Your task to perform on an android device: turn off translation in the chrome app Image 0: 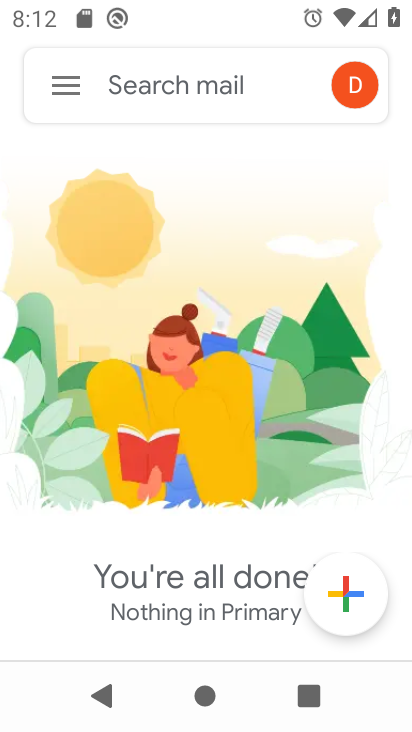
Step 0: press home button
Your task to perform on an android device: turn off translation in the chrome app Image 1: 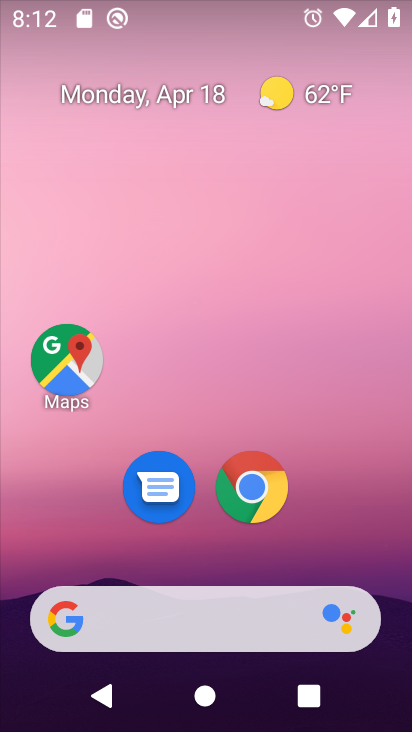
Step 1: drag from (205, 539) to (234, 27)
Your task to perform on an android device: turn off translation in the chrome app Image 2: 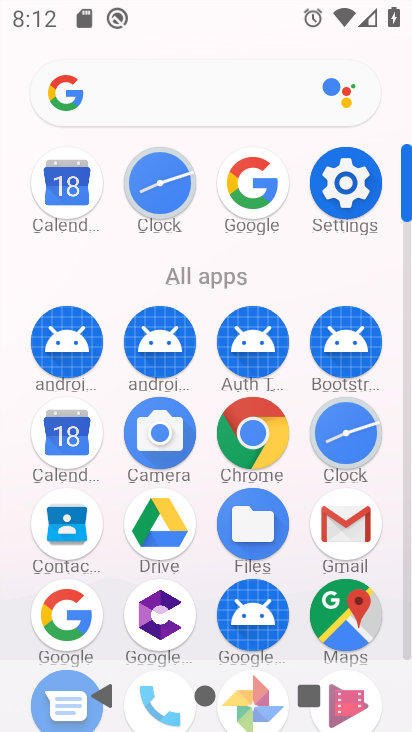
Step 2: click (248, 422)
Your task to perform on an android device: turn off translation in the chrome app Image 3: 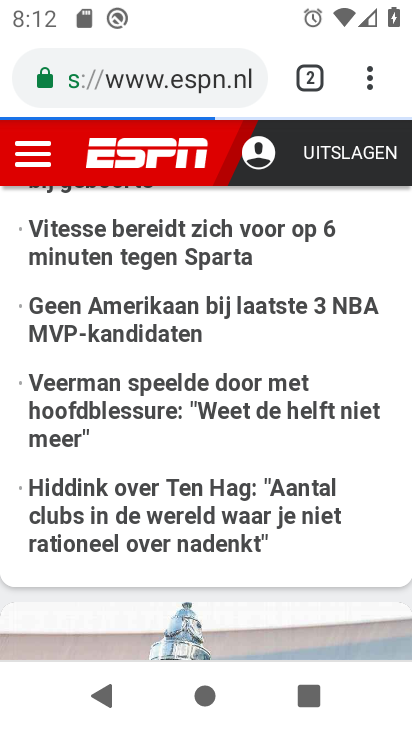
Step 3: click (310, 69)
Your task to perform on an android device: turn off translation in the chrome app Image 4: 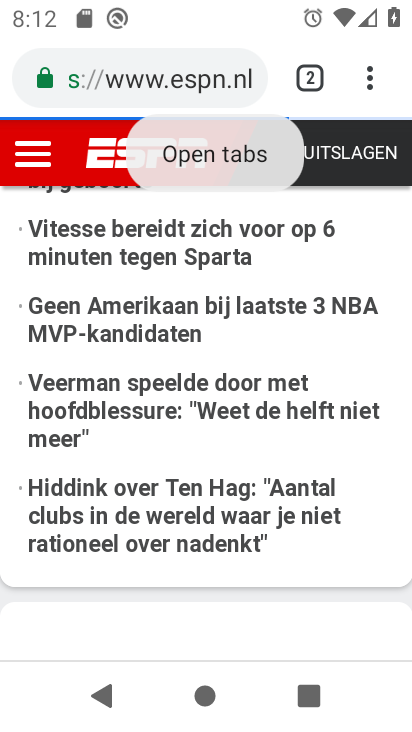
Step 4: click (307, 74)
Your task to perform on an android device: turn off translation in the chrome app Image 5: 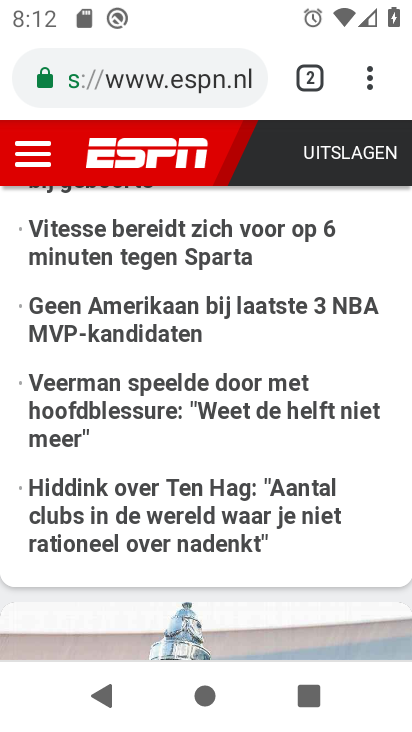
Step 5: click (307, 76)
Your task to perform on an android device: turn off translation in the chrome app Image 6: 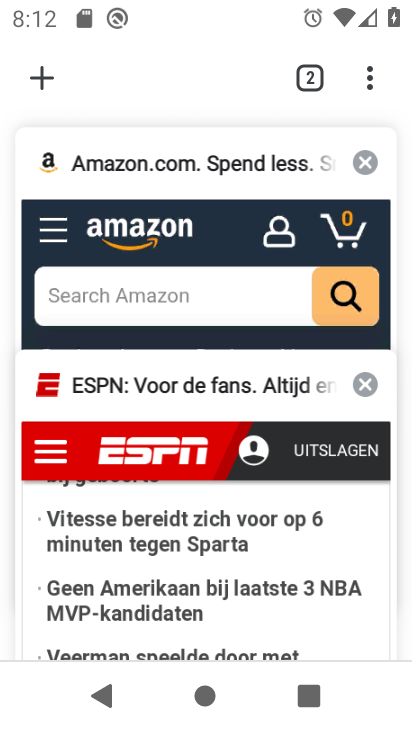
Step 6: click (366, 156)
Your task to perform on an android device: turn off translation in the chrome app Image 7: 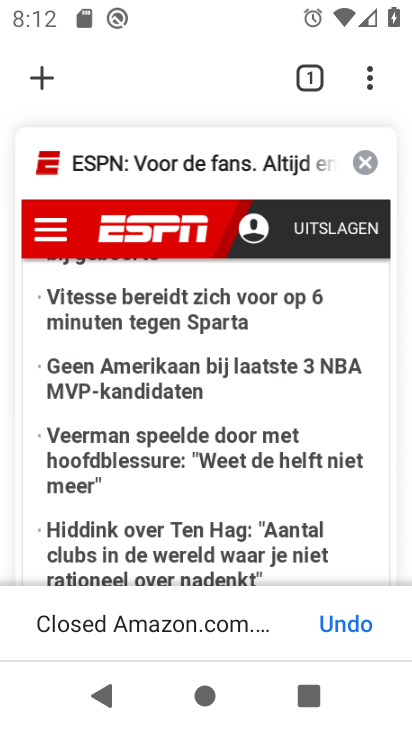
Step 7: click (366, 156)
Your task to perform on an android device: turn off translation in the chrome app Image 8: 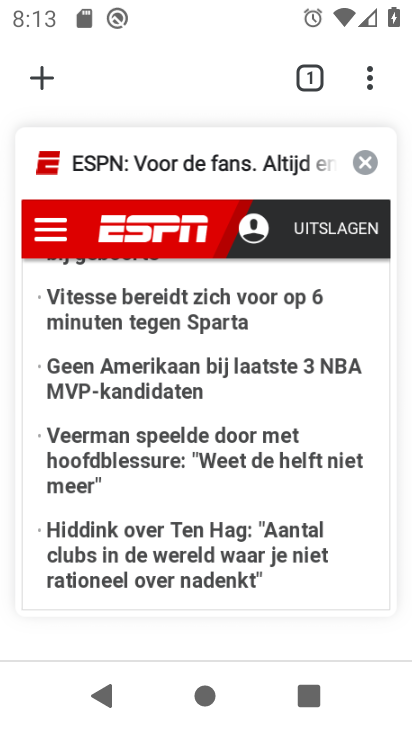
Step 8: click (363, 159)
Your task to perform on an android device: turn off translation in the chrome app Image 9: 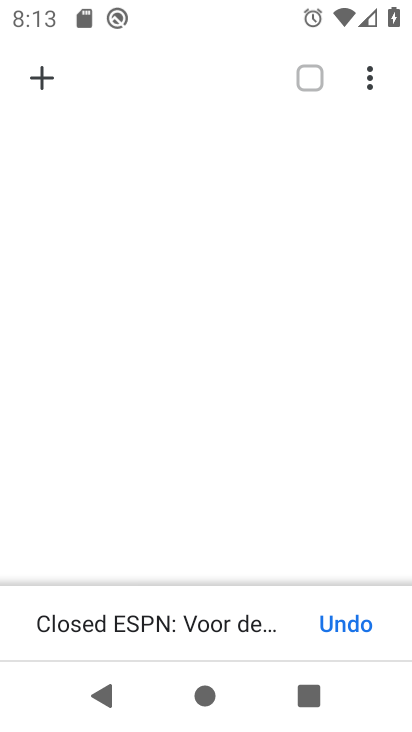
Step 9: click (47, 82)
Your task to perform on an android device: turn off translation in the chrome app Image 10: 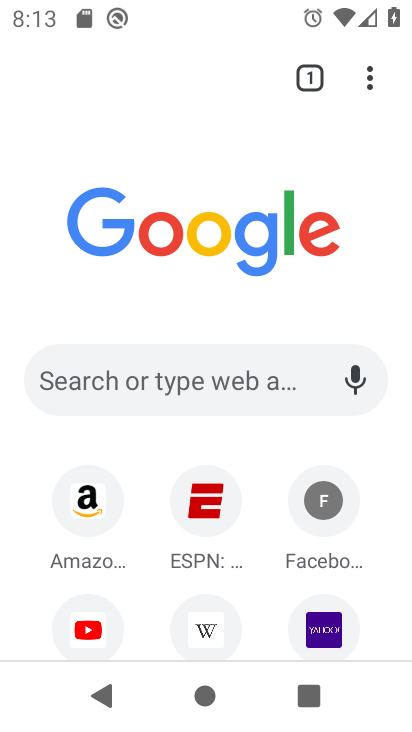
Step 10: click (371, 67)
Your task to perform on an android device: turn off translation in the chrome app Image 11: 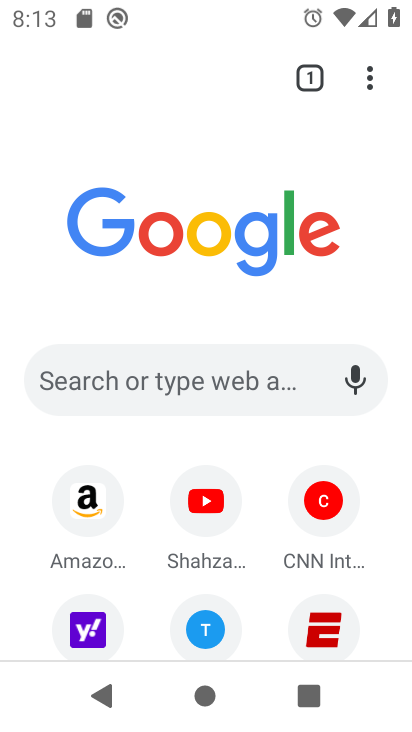
Step 11: click (366, 81)
Your task to perform on an android device: turn off translation in the chrome app Image 12: 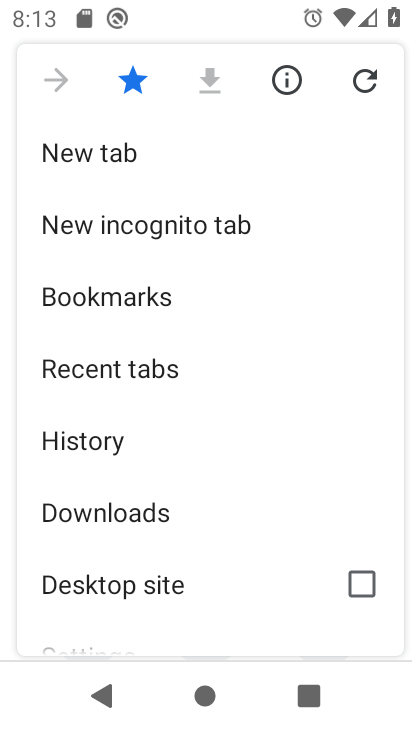
Step 12: drag from (189, 578) to (187, 125)
Your task to perform on an android device: turn off translation in the chrome app Image 13: 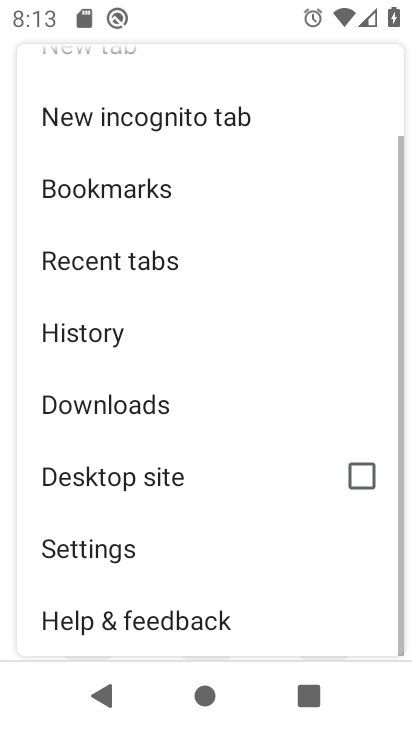
Step 13: click (135, 548)
Your task to perform on an android device: turn off translation in the chrome app Image 14: 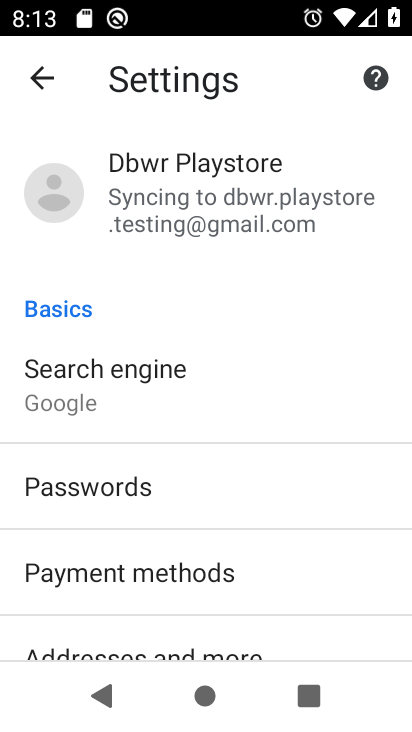
Step 14: drag from (264, 624) to (281, 214)
Your task to perform on an android device: turn off translation in the chrome app Image 15: 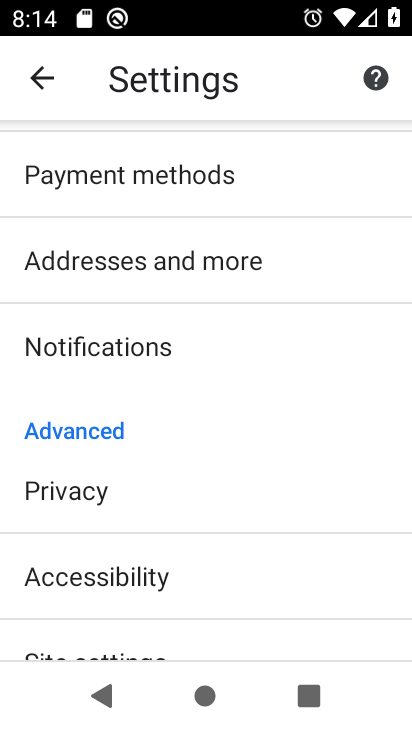
Step 15: drag from (225, 595) to (247, 192)
Your task to perform on an android device: turn off translation in the chrome app Image 16: 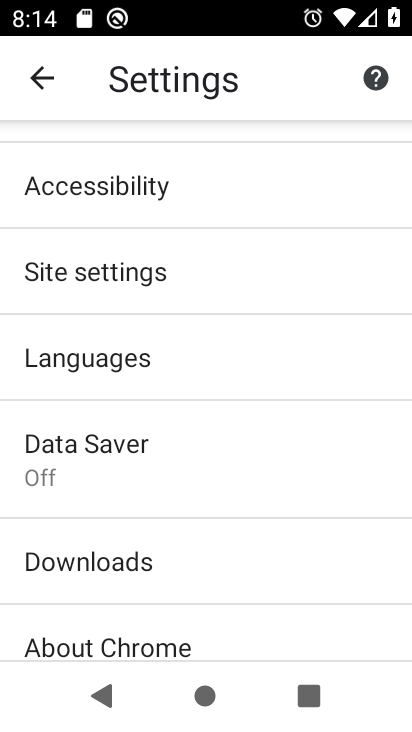
Step 16: click (150, 362)
Your task to perform on an android device: turn off translation in the chrome app Image 17: 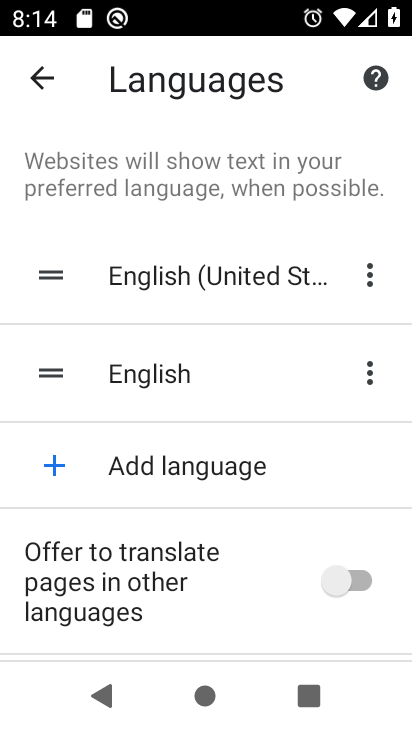
Step 17: task complete